Your task to perform on an android device: delete a single message in the gmail app Image 0: 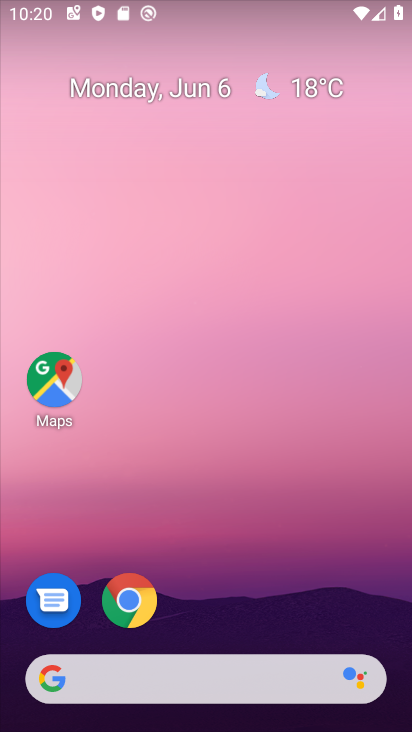
Step 0: drag from (210, 576) to (179, 2)
Your task to perform on an android device: delete a single message in the gmail app Image 1: 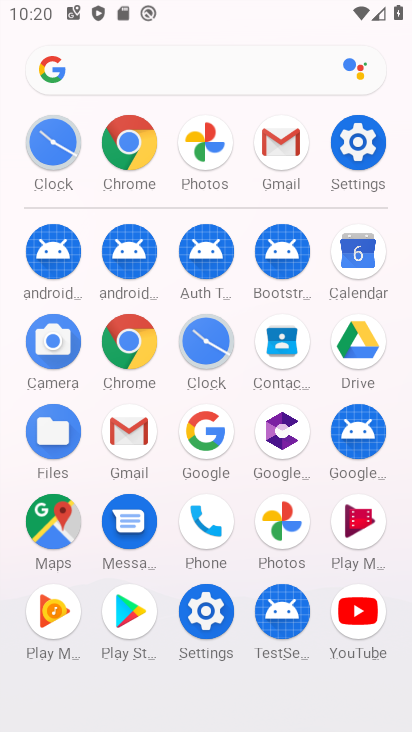
Step 1: click (128, 429)
Your task to perform on an android device: delete a single message in the gmail app Image 2: 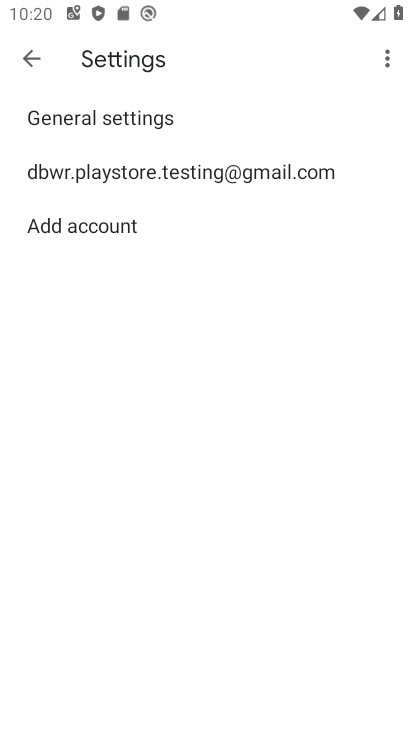
Step 2: click (24, 57)
Your task to perform on an android device: delete a single message in the gmail app Image 3: 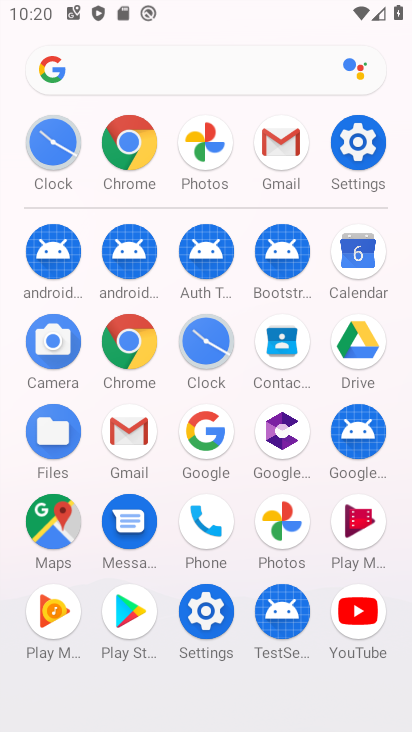
Step 3: click (128, 431)
Your task to perform on an android device: delete a single message in the gmail app Image 4: 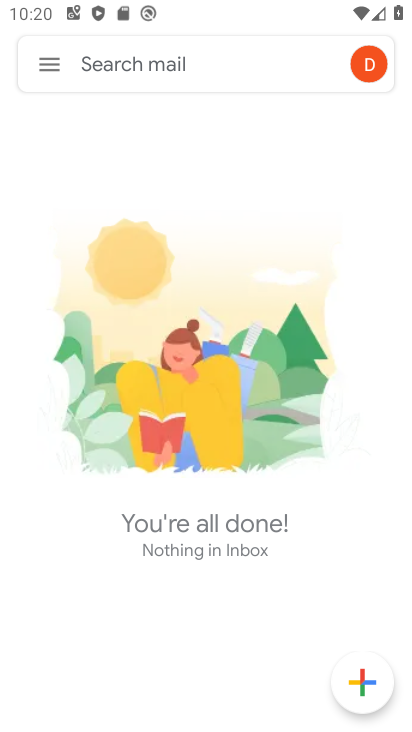
Step 4: click (36, 68)
Your task to perform on an android device: delete a single message in the gmail app Image 5: 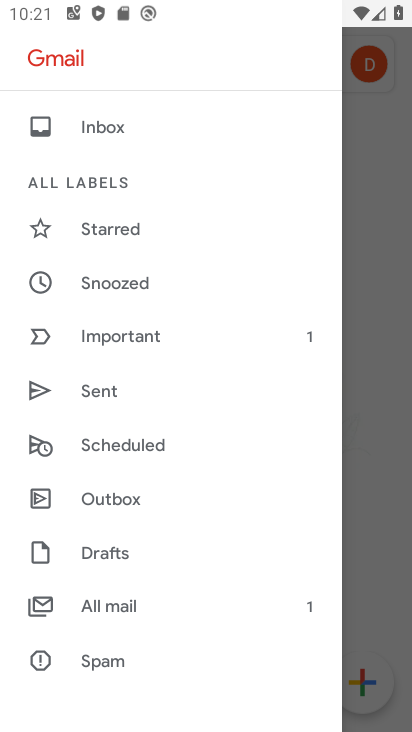
Step 5: click (150, 336)
Your task to perform on an android device: delete a single message in the gmail app Image 6: 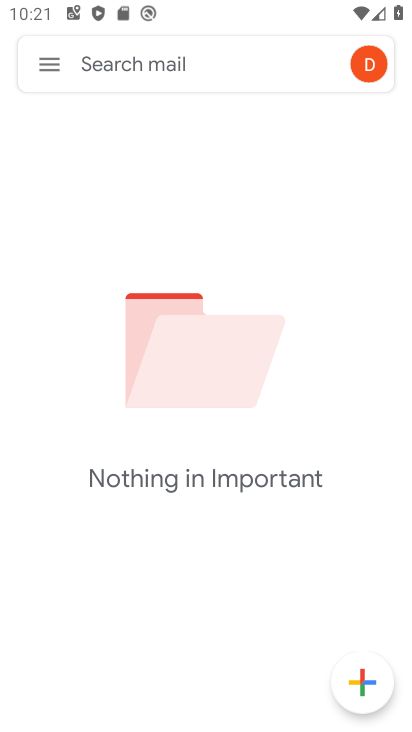
Step 6: task complete